Your task to perform on an android device: What's the weather today? Image 0: 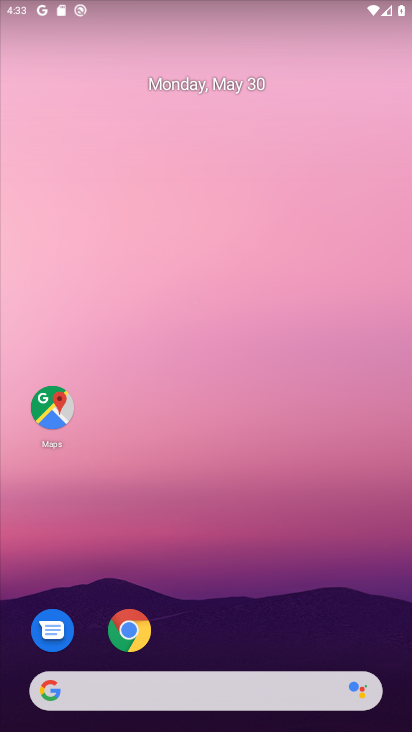
Step 0: click (51, 687)
Your task to perform on an android device: What's the weather today? Image 1: 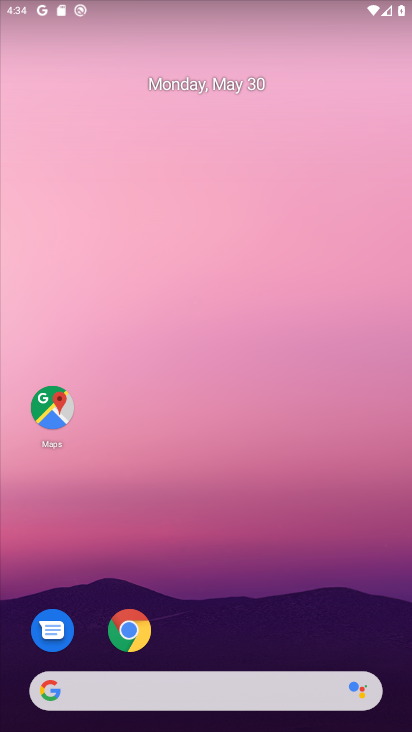
Step 1: type "weather today?"
Your task to perform on an android device: What's the weather today? Image 2: 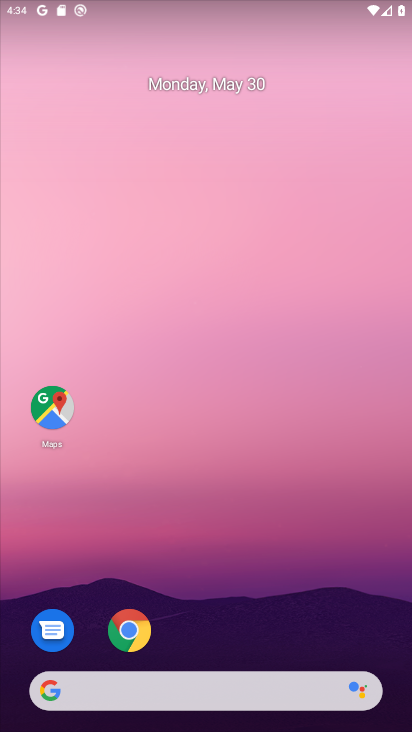
Step 2: click (52, 697)
Your task to perform on an android device: What's the weather today? Image 3: 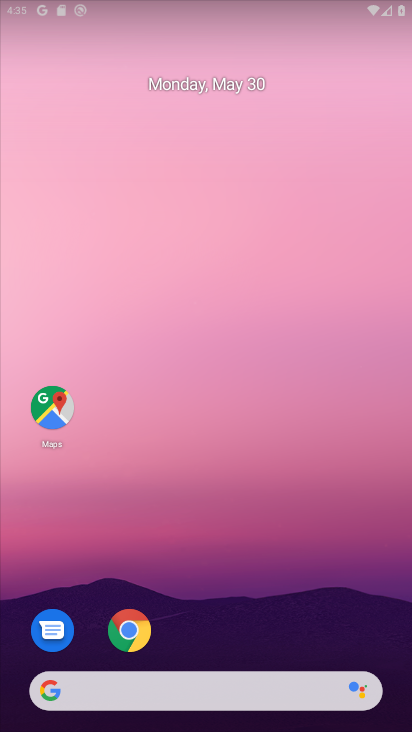
Step 3: click (45, 693)
Your task to perform on an android device: What's the weather today? Image 4: 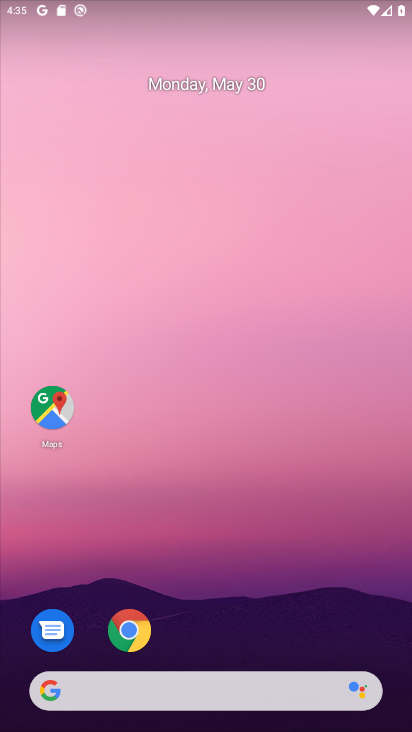
Step 4: click (50, 680)
Your task to perform on an android device: What's the weather today? Image 5: 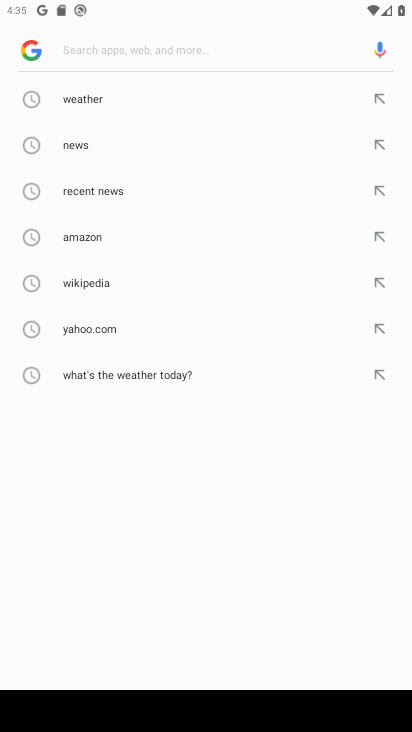
Step 5: type "weather today"
Your task to perform on an android device: What's the weather today? Image 6: 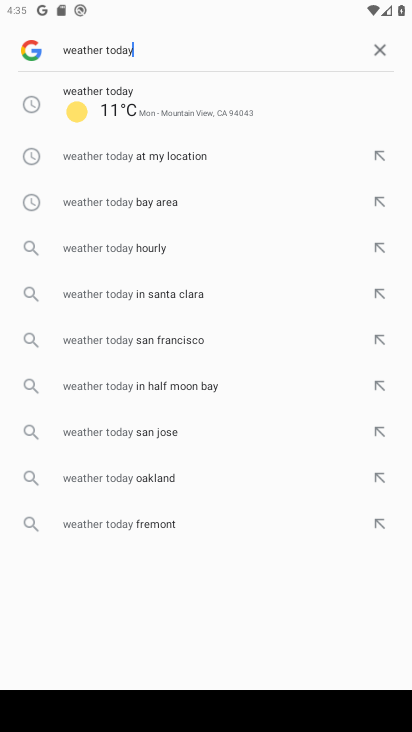
Step 6: click (175, 51)
Your task to perform on an android device: What's the weather today? Image 7: 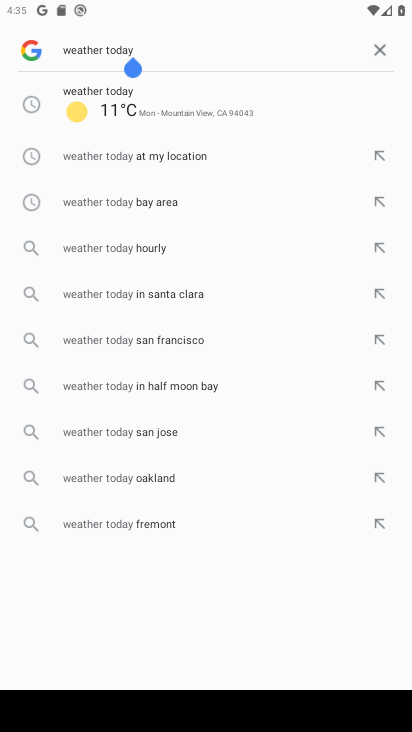
Step 7: click (120, 104)
Your task to perform on an android device: What's the weather today? Image 8: 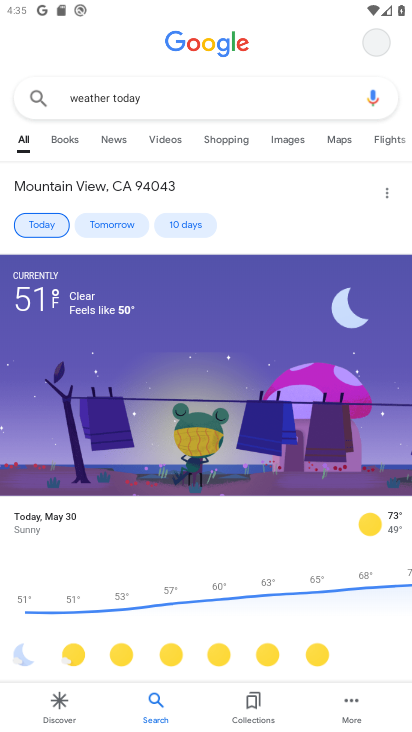
Step 8: task complete